Your task to perform on an android device: change the clock display to analog Image 0: 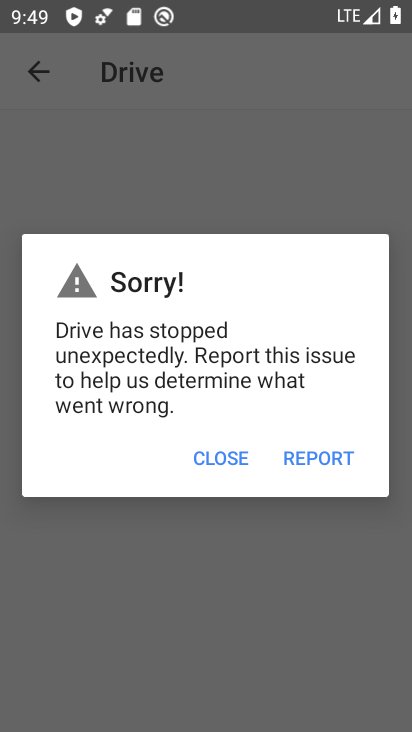
Step 0: press home button
Your task to perform on an android device: change the clock display to analog Image 1: 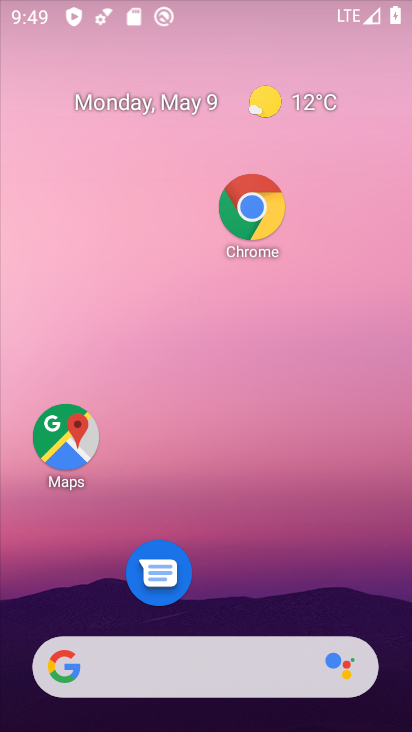
Step 1: drag from (285, 622) to (347, 115)
Your task to perform on an android device: change the clock display to analog Image 2: 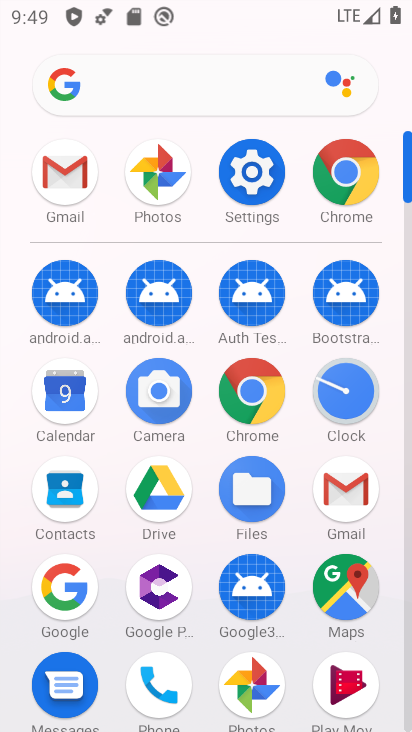
Step 2: click (340, 422)
Your task to perform on an android device: change the clock display to analog Image 3: 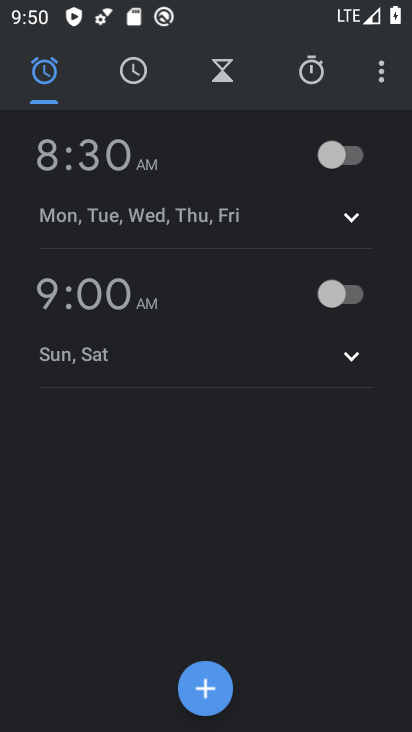
Step 3: click (382, 71)
Your task to perform on an android device: change the clock display to analog Image 4: 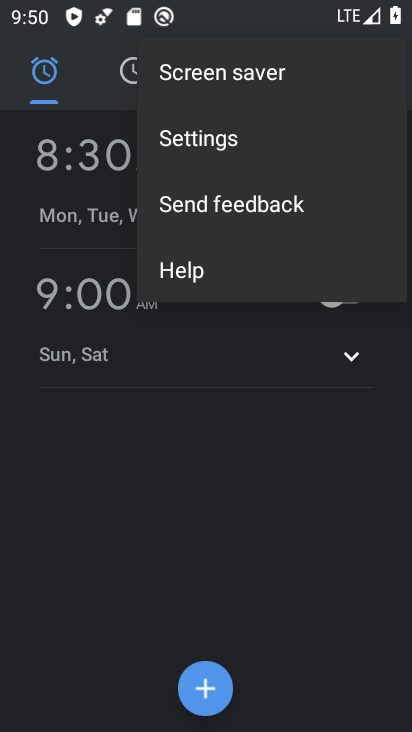
Step 4: click (259, 145)
Your task to perform on an android device: change the clock display to analog Image 5: 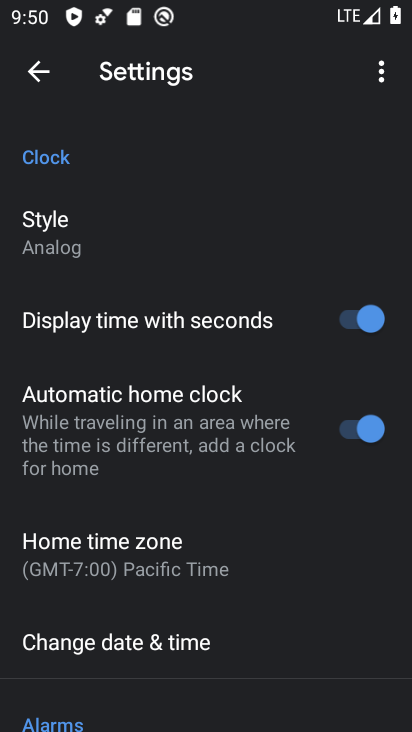
Step 5: click (143, 235)
Your task to perform on an android device: change the clock display to analog Image 6: 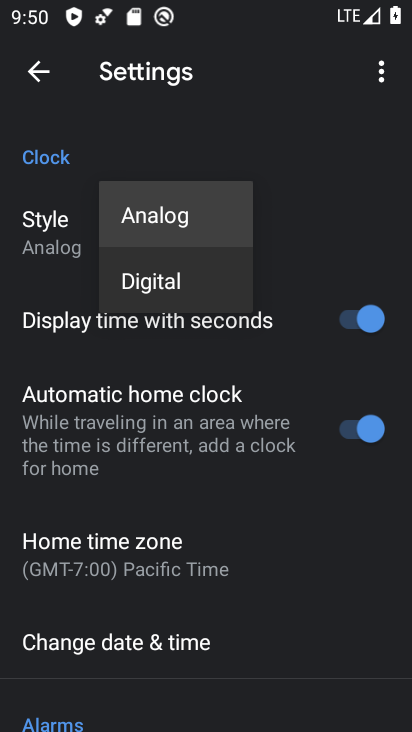
Step 6: task complete